Your task to perform on an android device: turn notification dots on Image 0: 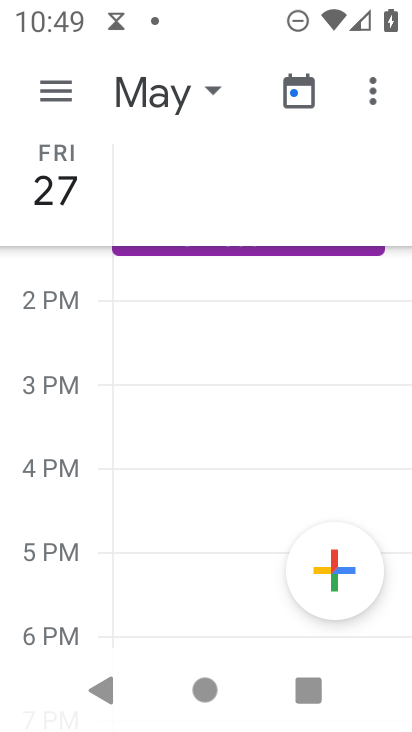
Step 0: press home button
Your task to perform on an android device: turn notification dots on Image 1: 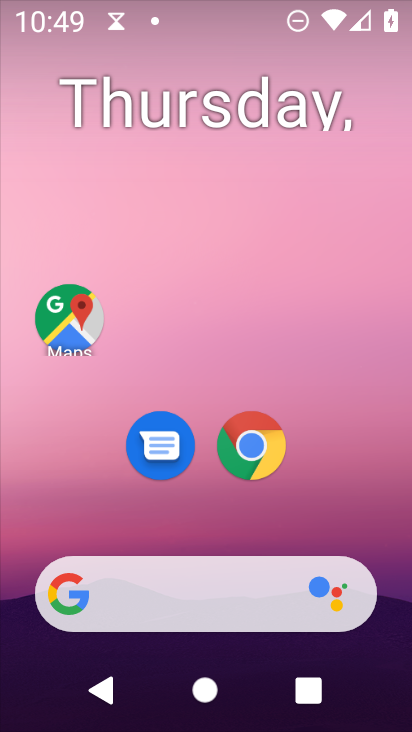
Step 1: drag from (238, 724) to (197, 68)
Your task to perform on an android device: turn notification dots on Image 2: 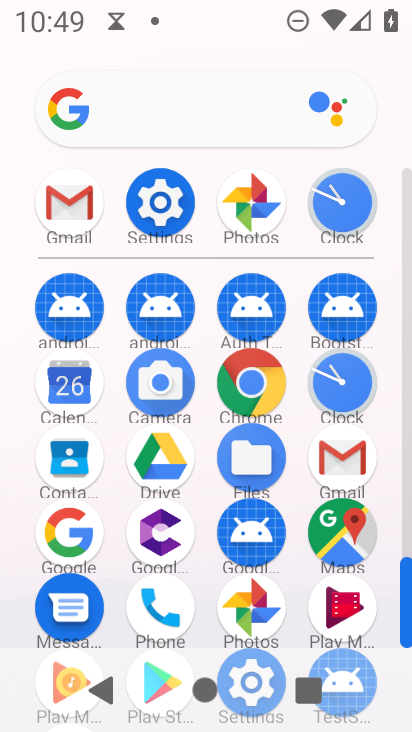
Step 2: click (160, 203)
Your task to perform on an android device: turn notification dots on Image 3: 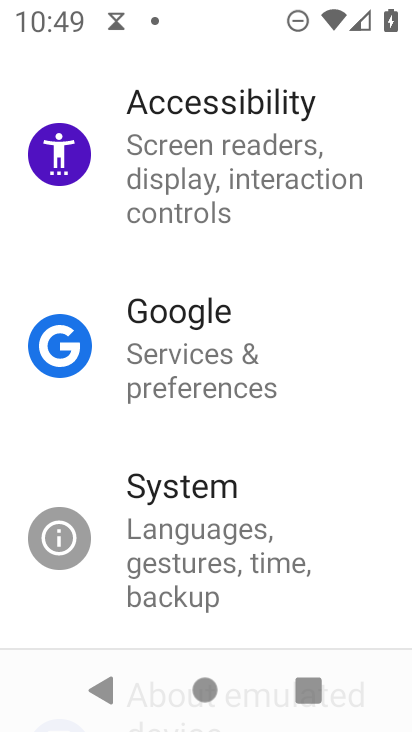
Step 3: drag from (351, 102) to (350, 618)
Your task to perform on an android device: turn notification dots on Image 4: 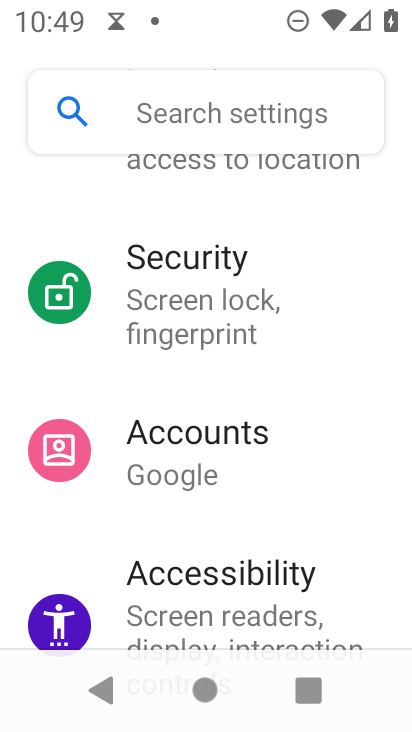
Step 4: drag from (322, 197) to (319, 629)
Your task to perform on an android device: turn notification dots on Image 5: 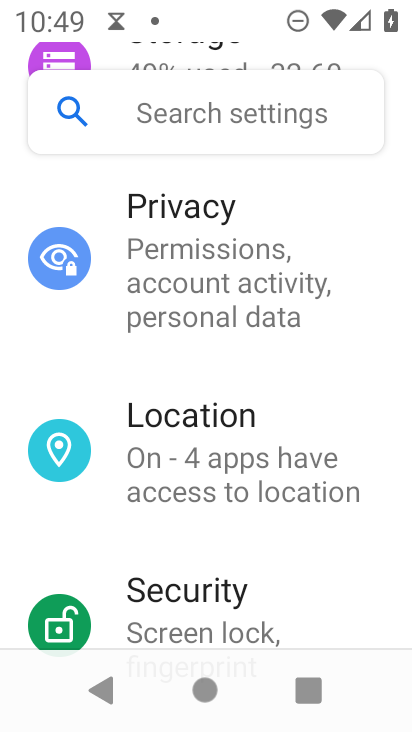
Step 5: drag from (334, 181) to (335, 589)
Your task to perform on an android device: turn notification dots on Image 6: 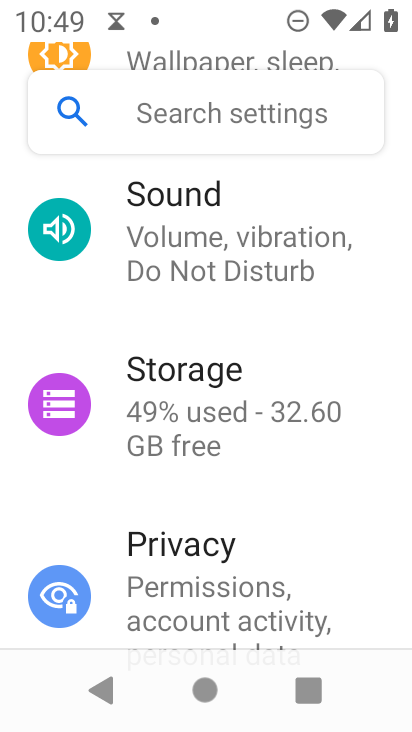
Step 6: drag from (341, 173) to (363, 511)
Your task to perform on an android device: turn notification dots on Image 7: 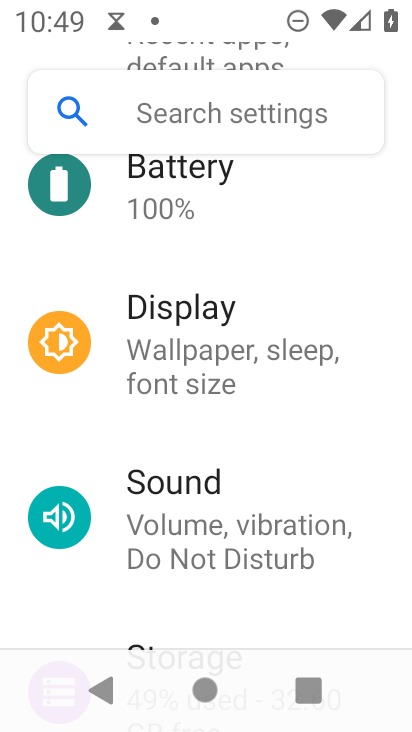
Step 7: drag from (342, 197) to (355, 474)
Your task to perform on an android device: turn notification dots on Image 8: 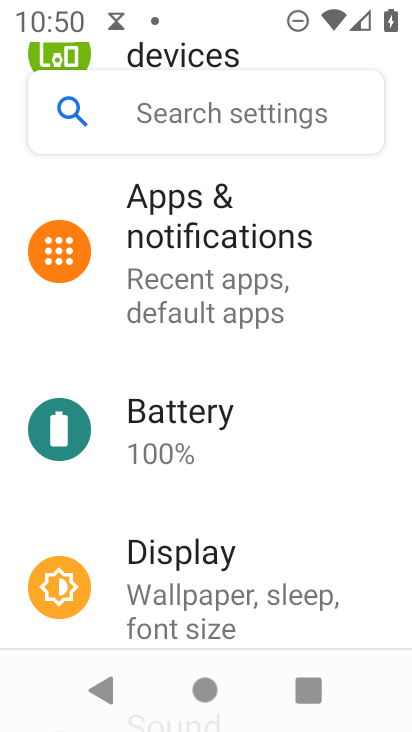
Step 8: click (121, 281)
Your task to perform on an android device: turn notification dots on Image 9: 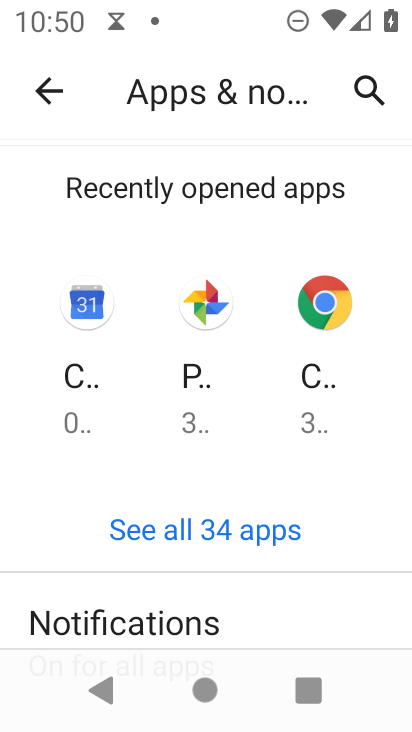
Step 9: drag from (347, 634) to (350, 131)
Your task to perform on an android device: turn notification dots on Image 10: 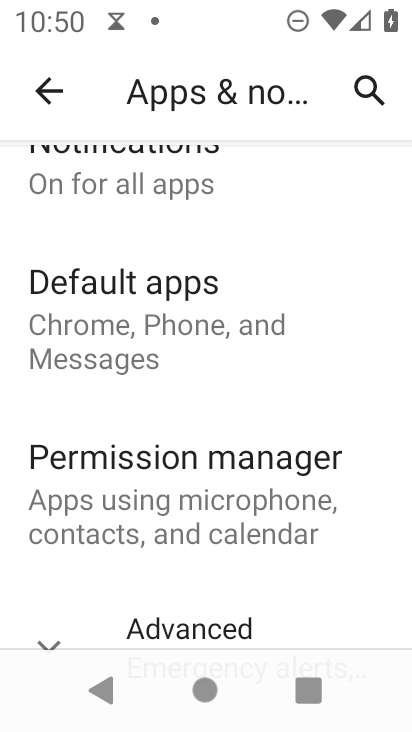
Step 10: click (132, 175)
Your task to perform on an android device: turn notification dots on Image 11: 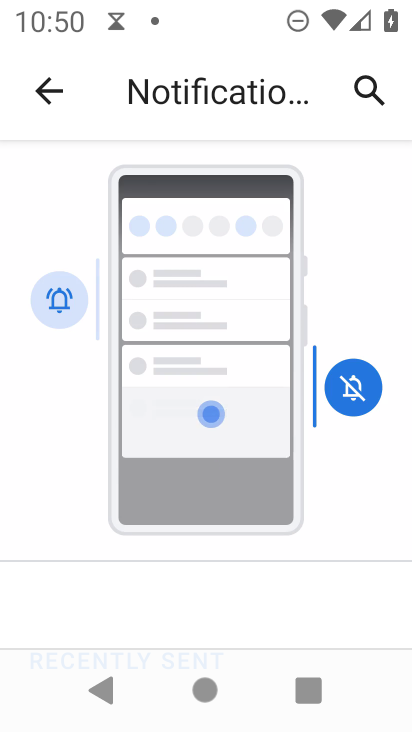
Step 11: drag from (372, 629) to (374, 127)
Your task to perform on an android device: turn notification dots on Image 12: 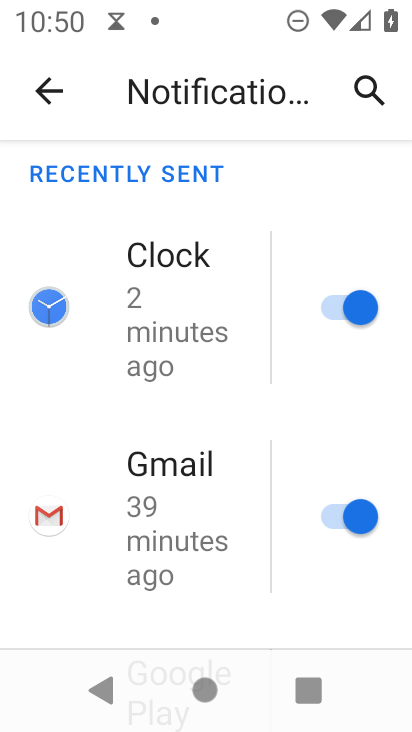
Step 12: drag from (348, 627) to (349, 179)
Your task to perform on an android device: turn notification dots on Image 13: 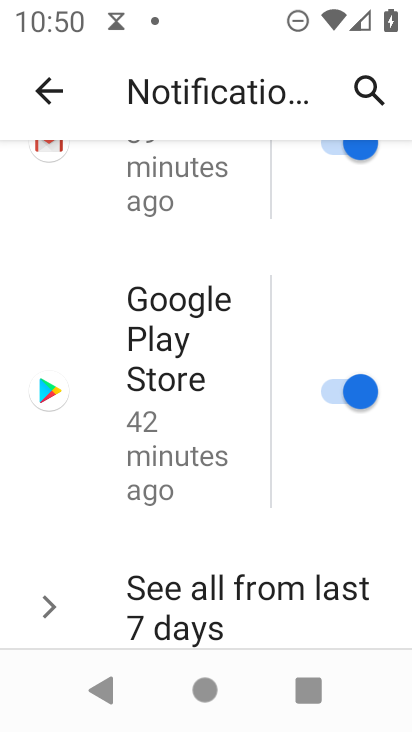
Step 13: drag from (380, 628) to (362, 149)
Your task to perform on an android device: turn notification dots on Image 14: 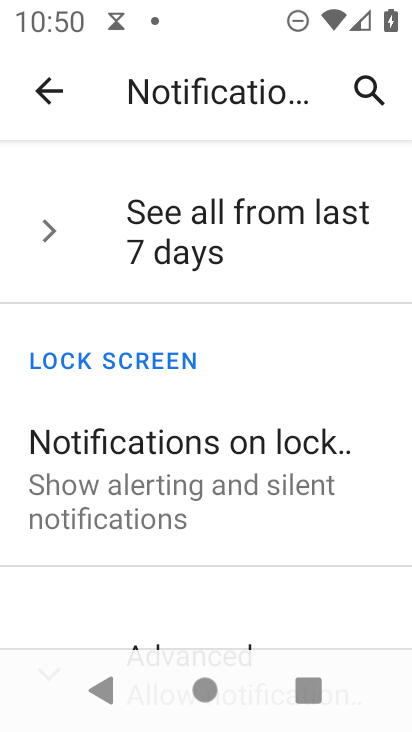
Step 14: drag from (320, 630) to (313, 151)
Your task to perform on an android device: turn notification dots on Image 15: 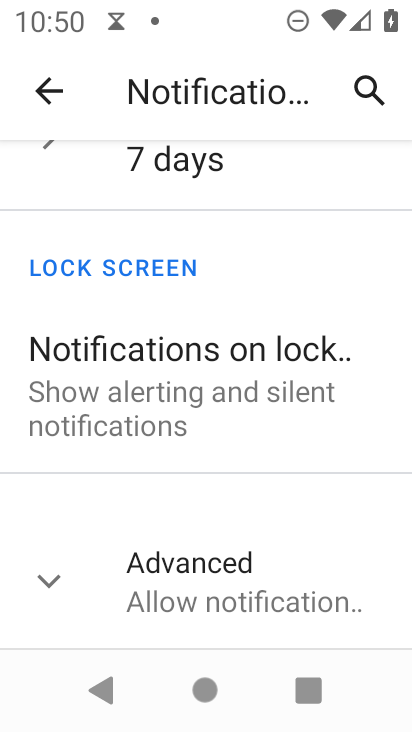
Step 15: click (154, 569)
Your task to perform on an android device: turn notification dots on Image 16: 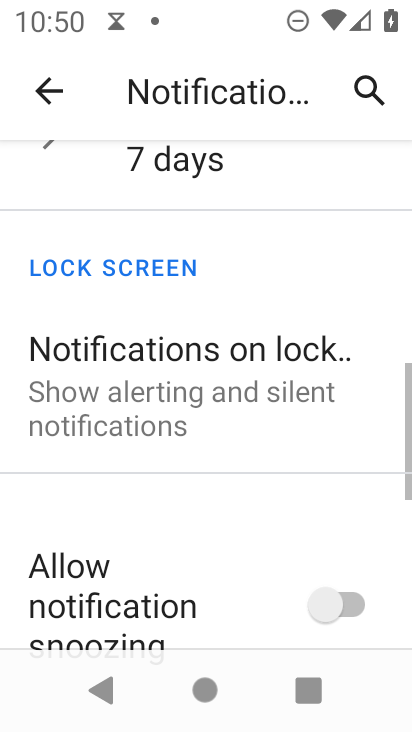
Step 16: task complete